Your task to perform on an android device: Search for vegetarian restaurants on Maps Image 0: 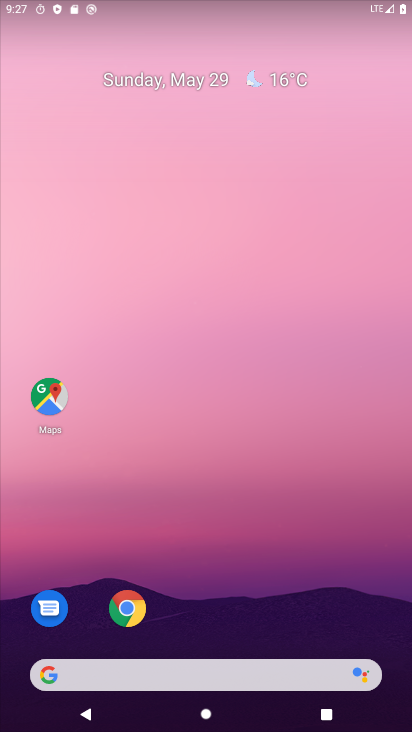
Step 0: click (54, 402)
Your task to perform on an android device: Search for vegetarian restaurants on Maps Image 1: 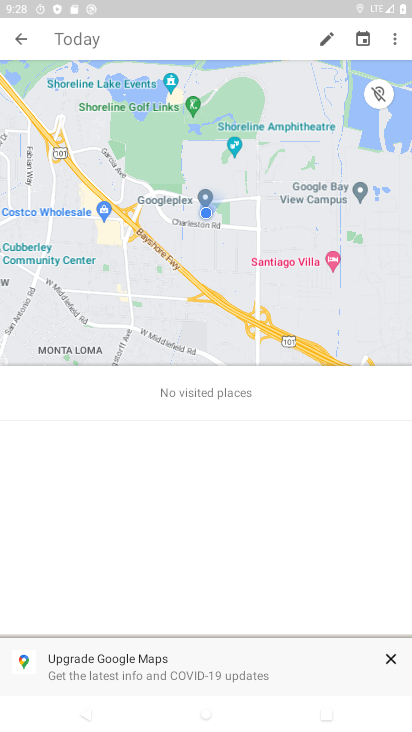
Step 1: click (16, 46)
Your task to perform on an android device: Search for vegetarian restaurants on Maps Image 2: 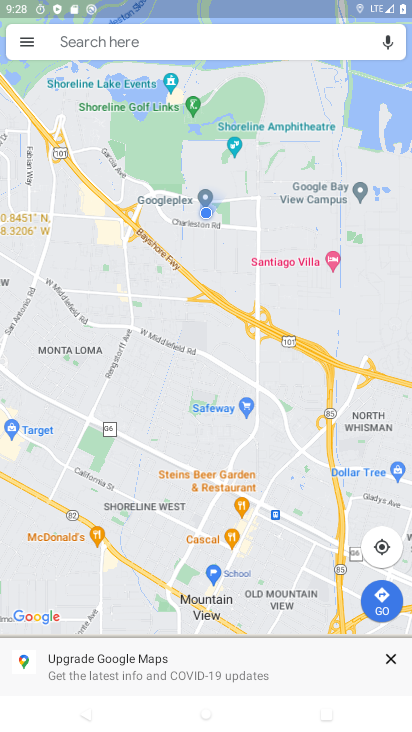
Step 2: click (124, 35)
Your task to perform on an android device: Search for vegetarian restaurants on Maps Image 3: 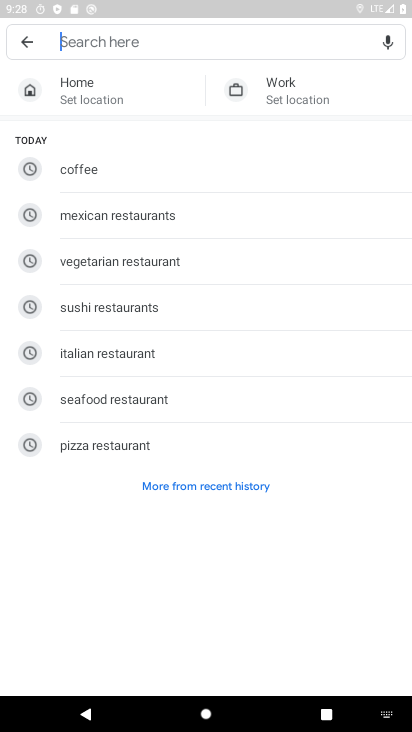
Step 3: click (166, 257)
Your task to perform on an android device: Search for vegetarian restaurants on Maps Image 4: 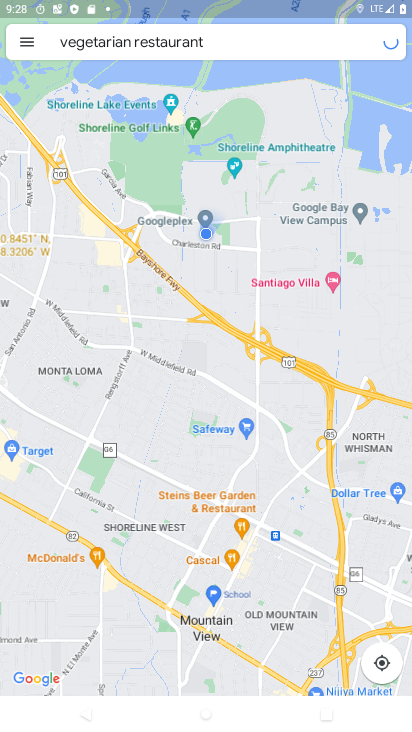
Step 4: task complete